Your task to perform on an android device: toggle pop-ups in chrome Image 0: 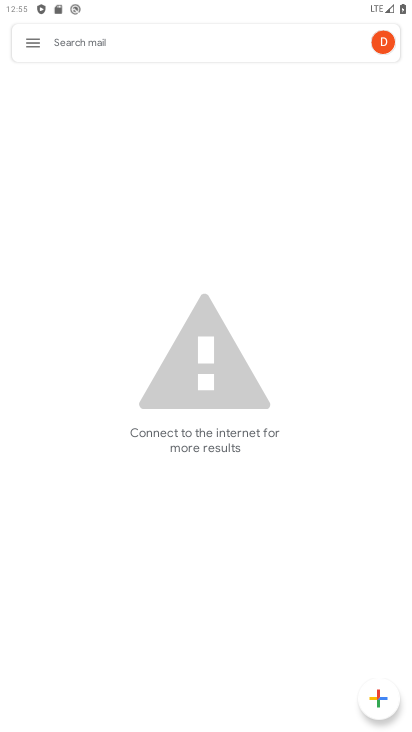
Step 0: press home button
Your task to perform on an android device: toggle pop-ups in chrome Image 1: 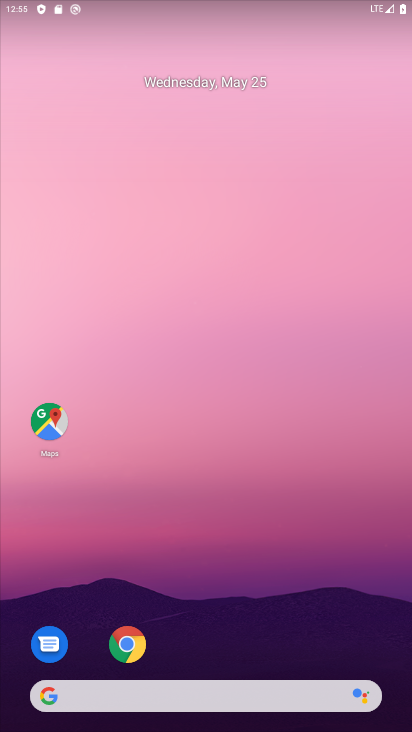
Step 1: click (125, 652)
Your task to perform on an android device: toggle pop-ups in chrome Image 2: 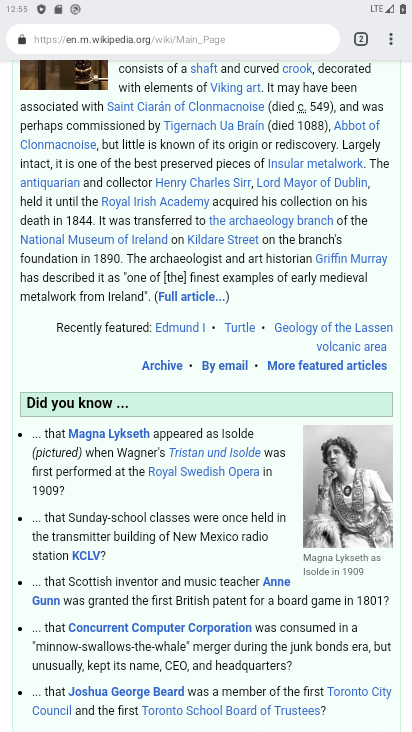
Step 2: click (387, 33)
Your task to perform on an android device: toggle pop-ups in chrome Image 3: 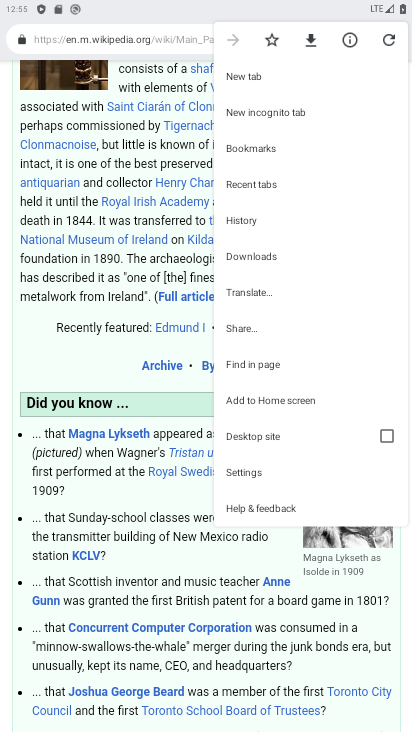
Step 3: click (243, 468)
Your task to perform on an android device: toggle pop-ups in chrome Image 4: 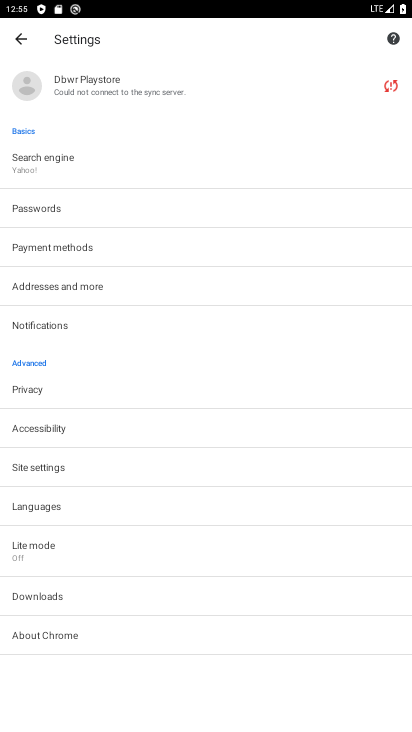
Step 4: click (40, 467)
Your task to perform on an android device: toggle pop-ups in chrome Image 5: 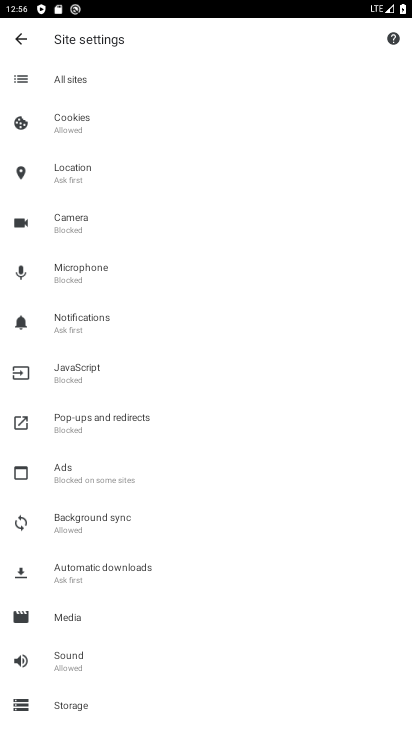
Step 5: click (98, 420)
Your task to perform on an android device: toggle pop-ups in chrome Image 6: 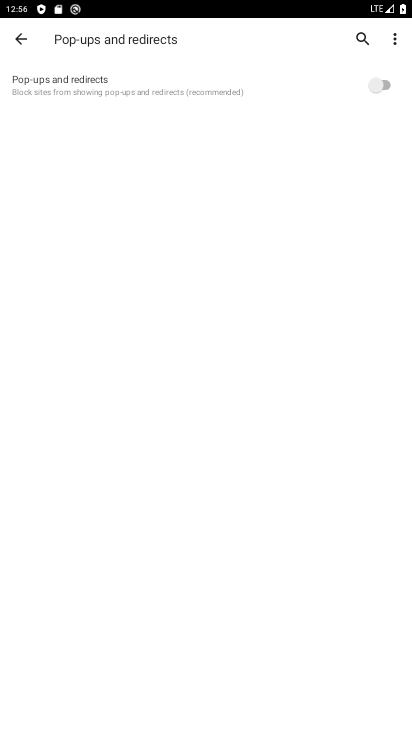
Step 6: click (372, 79)
Your task to perform on an android device: toggle pop-ups in chrome Image 7: 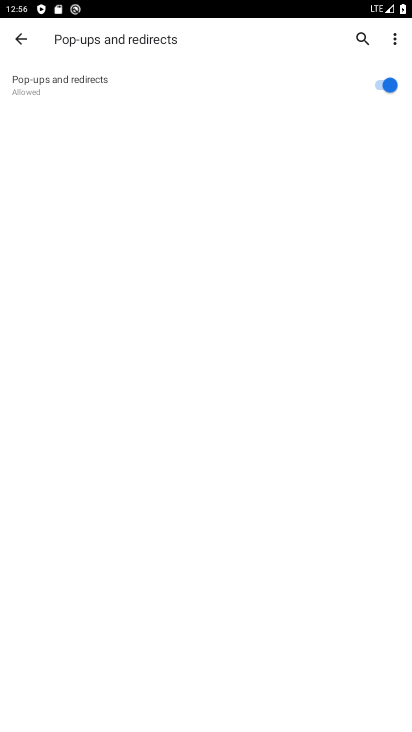
Step 7: task complete